Your task to perform on an android device: Open notification settings Image 0: 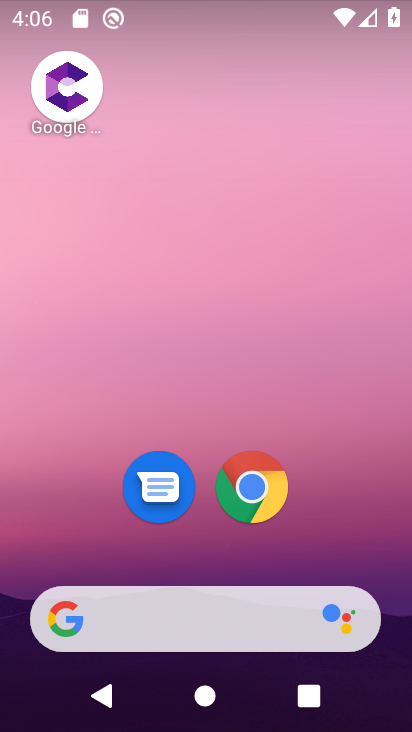
Step 0: drag from (362, 533) to (349, 89)
Your task to perform on an android device: Open notification settings Image 1: 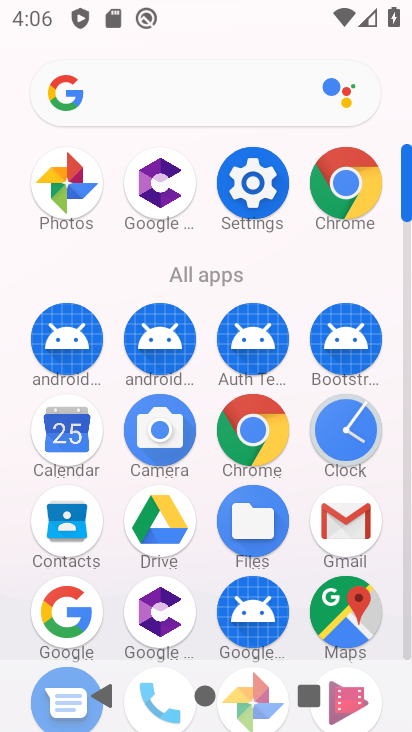
Step 1: click (264, 198)
Your task to perform on an android device: Open notification settings Image 2: 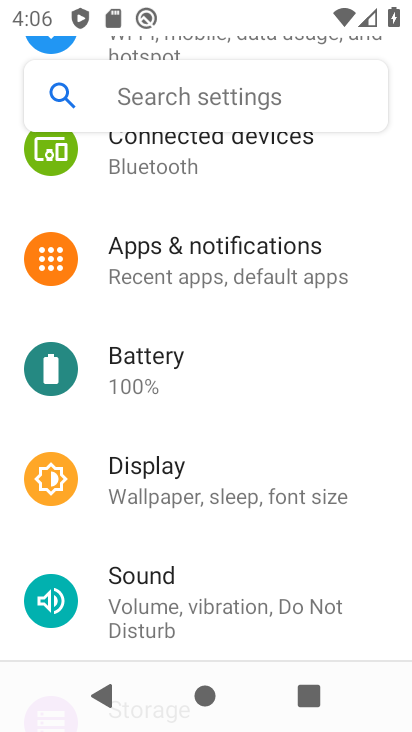
Step 2: drag from (352, 446) to (360, 328)
Your task to perform on an android device: Open notification settings Image 3: 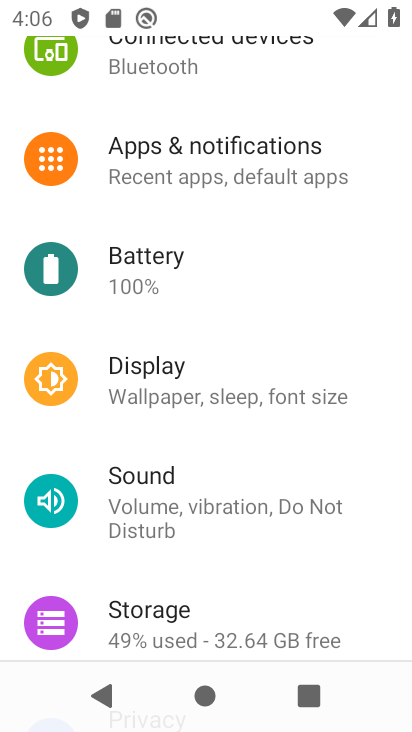
Step 3: drag from (374, 559) to (376, 398)
Your task to perform on an android device: Open notification settings Image 4: 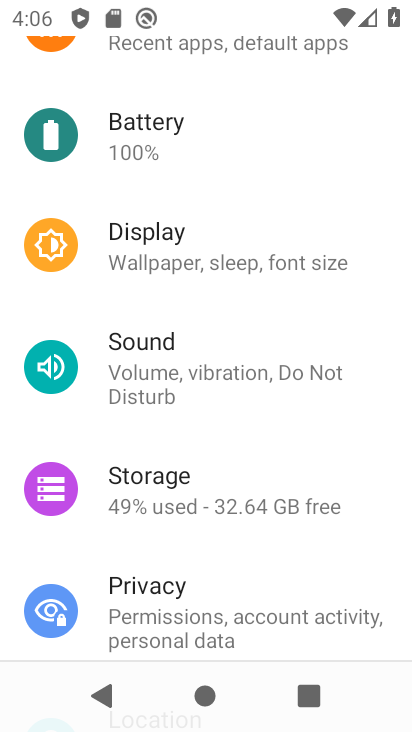
Step 4: drag from (373, 550) to (374, 417)
Your task to perform on an android device: Open notification settings Image 5: 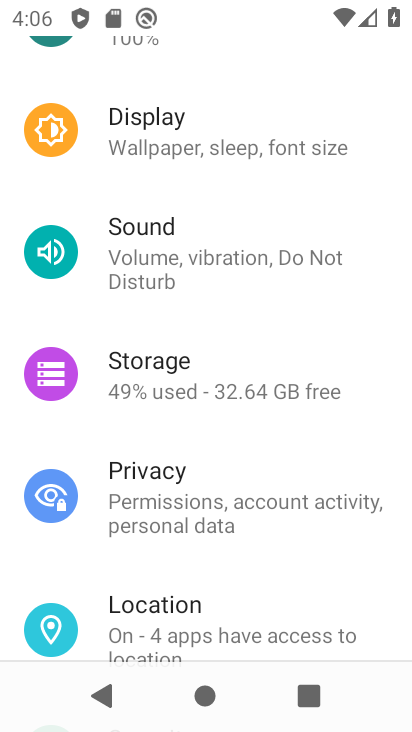
Step 5: drag from (379, 588) to (377, 425)
Your task to perform on an android device: Open notification settings Image 6: 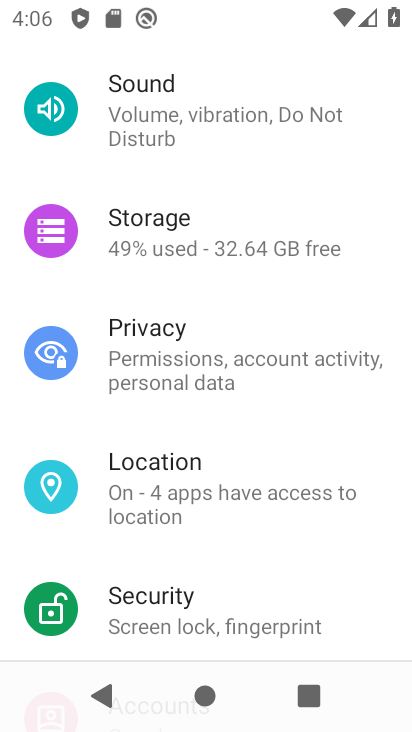
Step 6: drag from (371, 611) to (373, 446)
Your task to perform on an android device: Open notification settings Image 7: 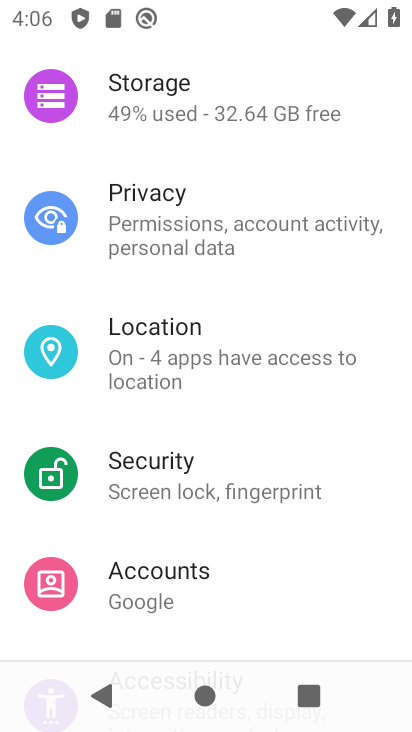
Step 7: drag from (351, 612) to (364, 462)
Your task to perform on an android device: Open notification settings Image 8: 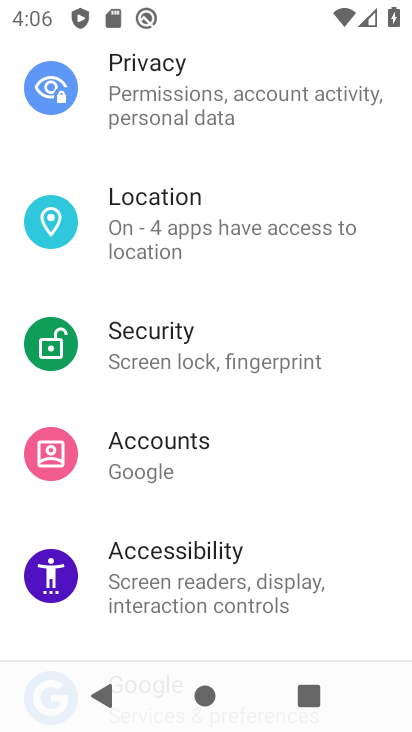
Step 8: drag from (360, 579) to (361, 431)
Your task to perform on an android device: Open notification settings Image 9: 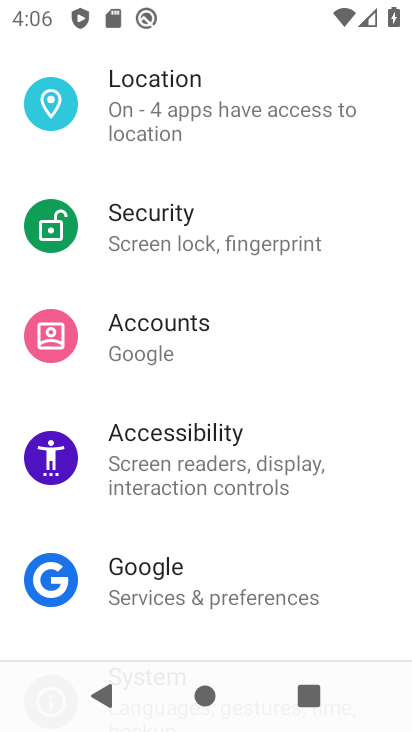
Step 9: drag from (368, 602) to (367, 436)
Your task to perform on an android device: Open notification settings Image 10: 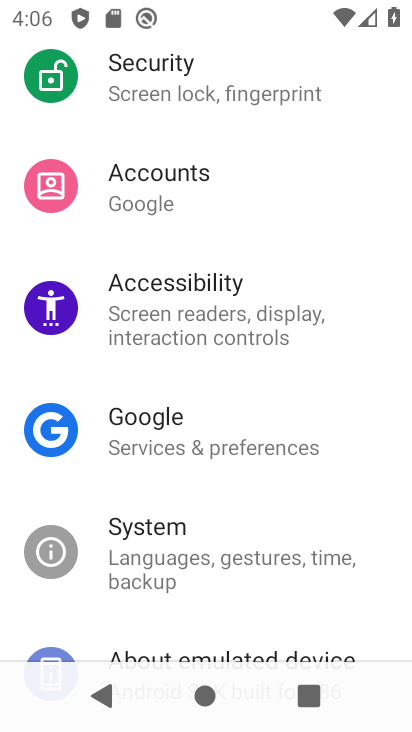
Step 10: drag from (357, 577) to (356, 441)
Your task to perform on an android device: Open notification settings Image 11: 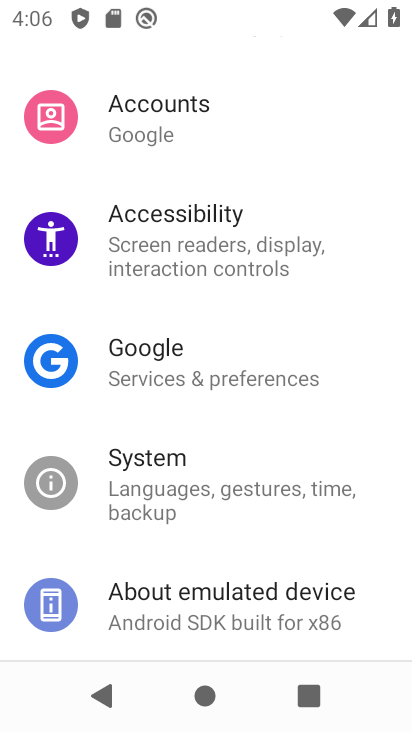
Step 11: drag from (326, 353) to (334, 474)
Your task to perform on an android device: Open notification settings Image 12: 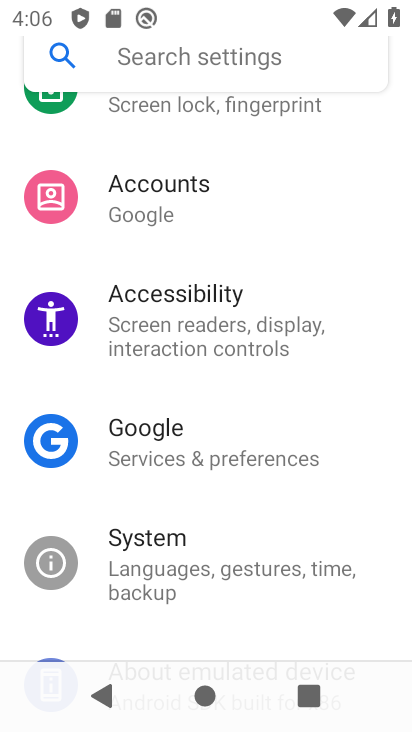
Step 12: drag from (363, 288) to (371, 468)
Your task to perform on an android device: Open notification settings Image 13: 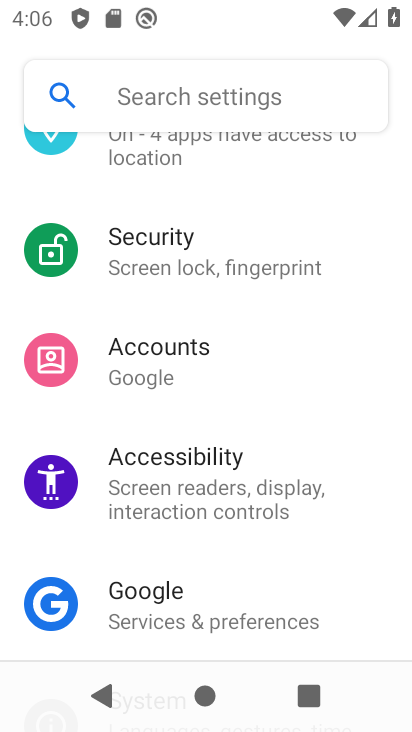
Step 13: drag from (363, 284) to (360, 413)
Your task to perform on an android device: Open notification settings Image 14: 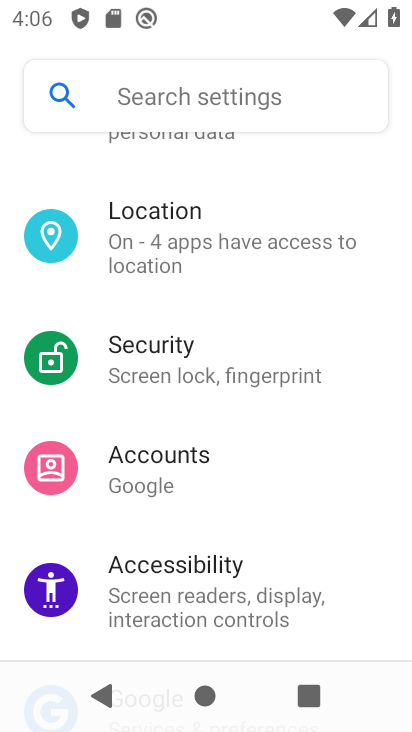
Step 14: drag from (371, 228) to (351, 385)
Your task to perform on an android device: Open notification settings Image 15: 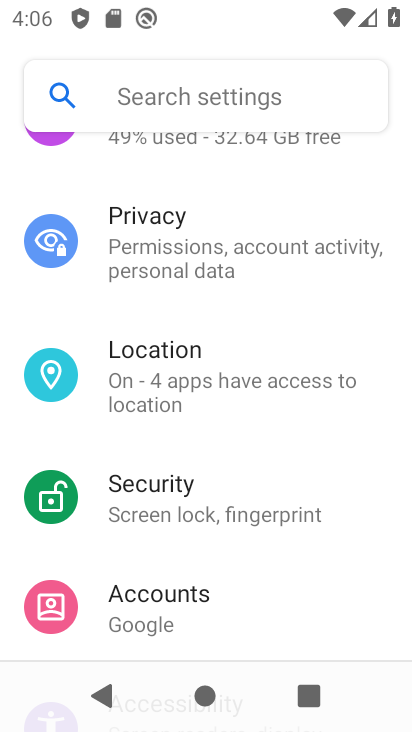
Step 15: drag from (370, 197) to (353, 394)
Your task to perform on an android device: Open notification settings Image 16: 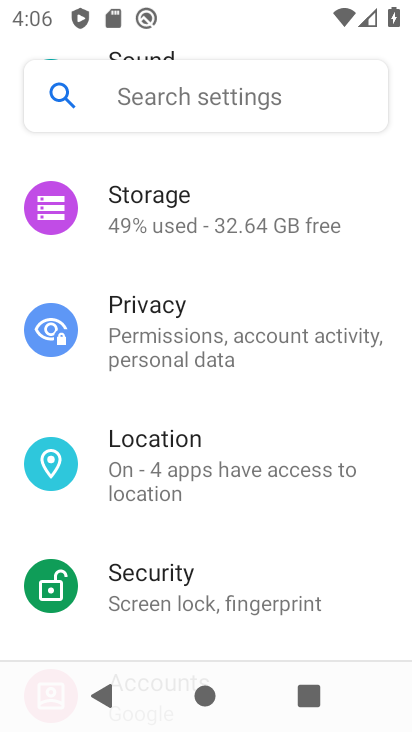
Step 16: drag from (366, 205) to (355, 403)
Your task to perform on an android device: Open notification settings Image 17: 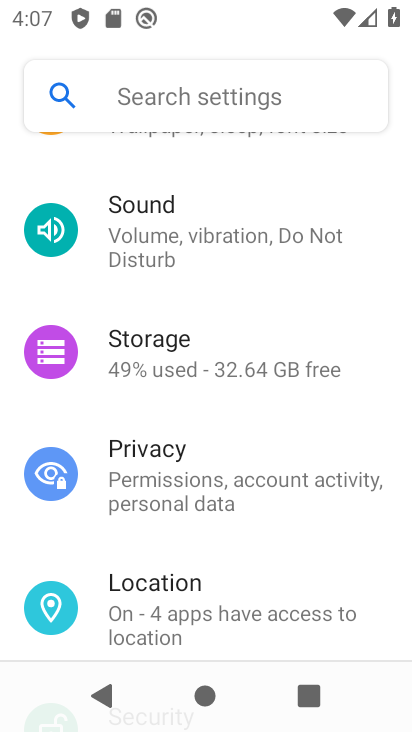
Step 17: drag from (371, 195) to (360, 378)
Your task to perform on an android device: Open notification settings Image 18: 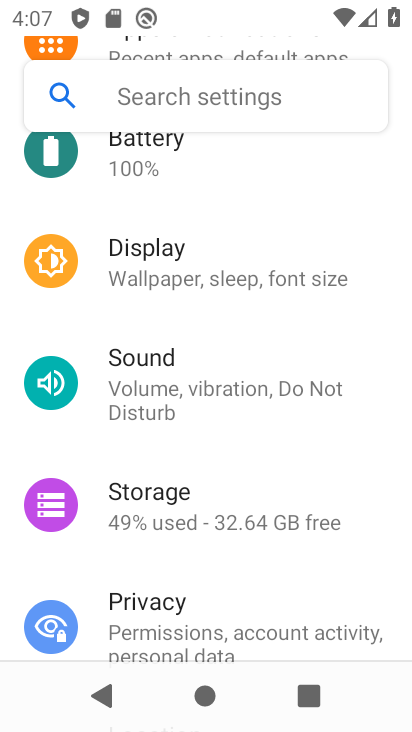
Step 18: drag from (368, 208) to (372, 350)
Your task to perform on an android device: Open notification settings Image 19: 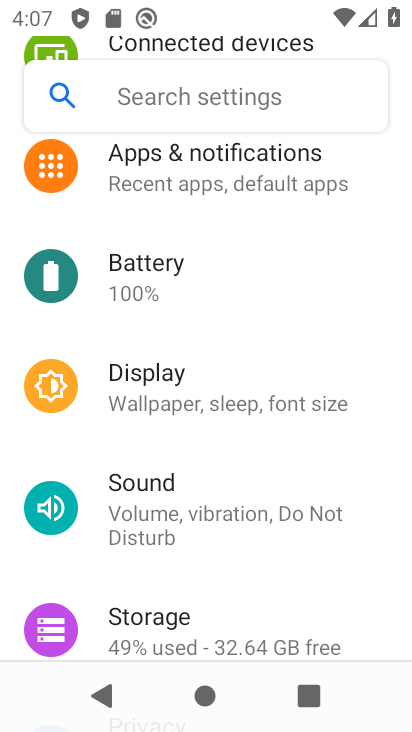
Step 19: click (304, 182)
Your task to perform on an android device: Open notification settings Image 20: 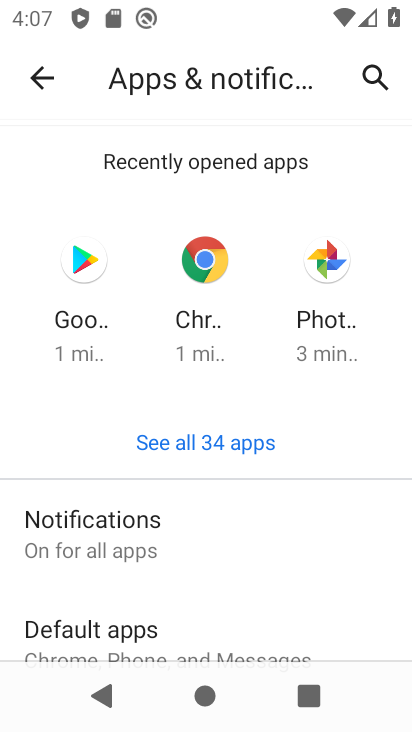
Step 20: click (167, 545)
Your task to perform on an android device: Open notification settings Image 21: 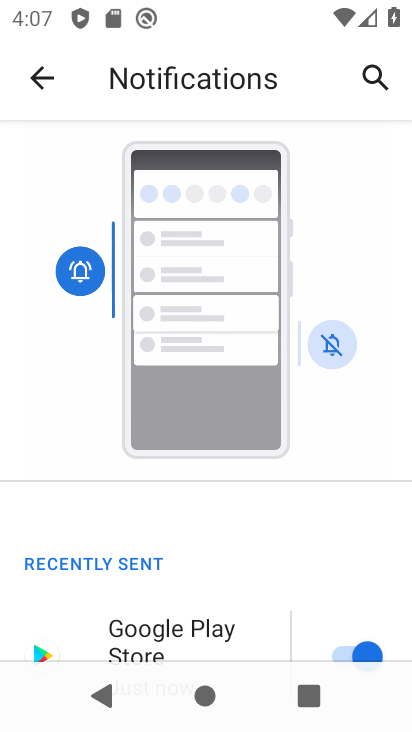
Step 21: task complete